Your task to perform on an android device: toggle translation in the chrome app Image 0: 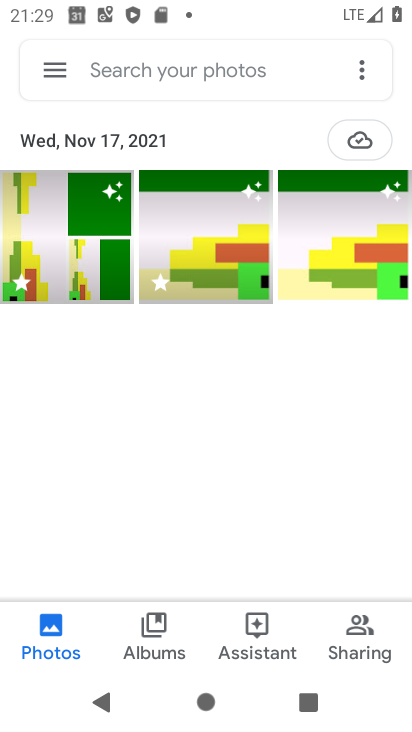
Step 0: press home button
Your task to perform on an android device: toggle translation in the chrome app Image 1: 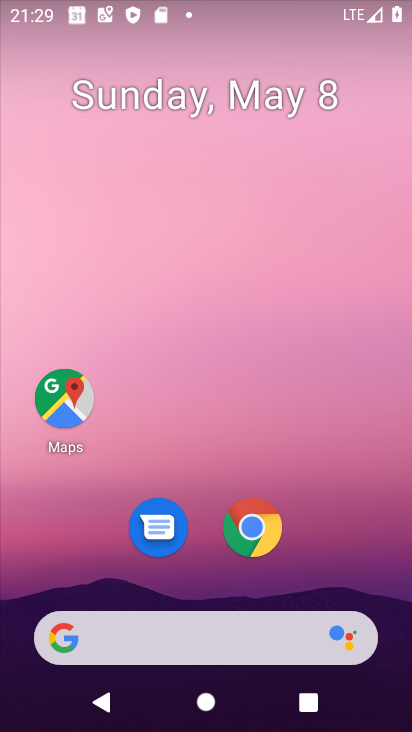
Step 1: click (254, 531)
Your task to perform on an android device: toggle translation in the chrome app Image 2: 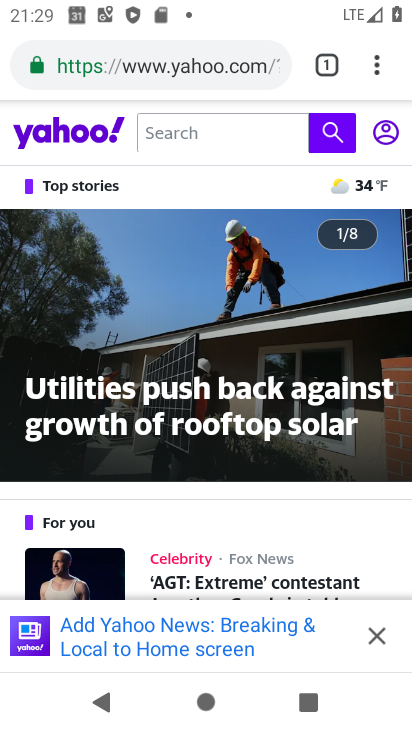
Step 2: click (366, 69)
Your task to perform on an android device: toggle translation in the chrome app Image 3: 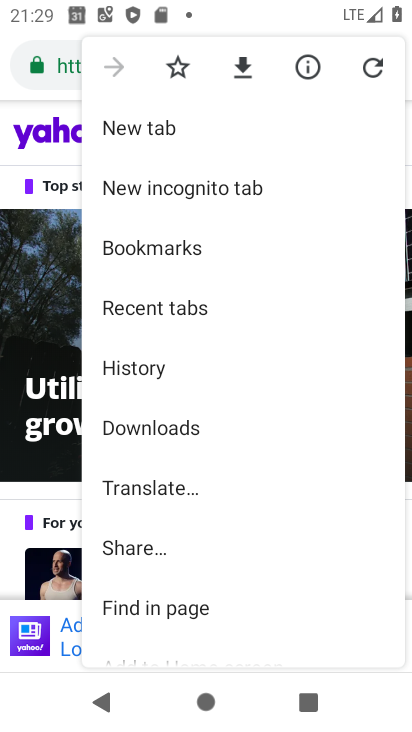
Step 3: drag from (278, 591) to (283, 208)
Your task to perform on an android device: toggle translation in the chrome app Image 4: 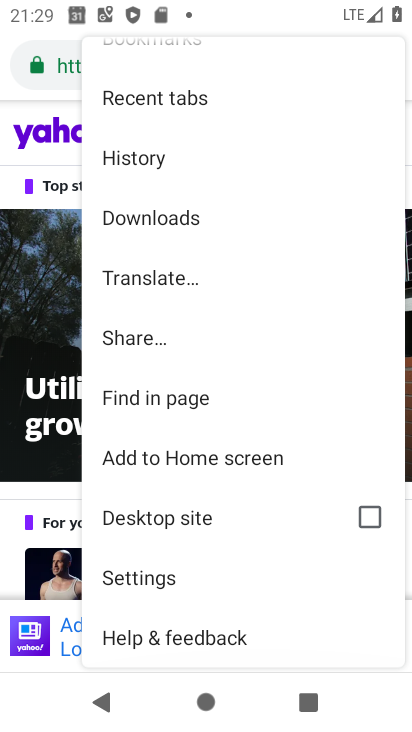
Step 4: click (159, 577)
Your task to perform on an android device: toggle translation in the chrome app Image 5: 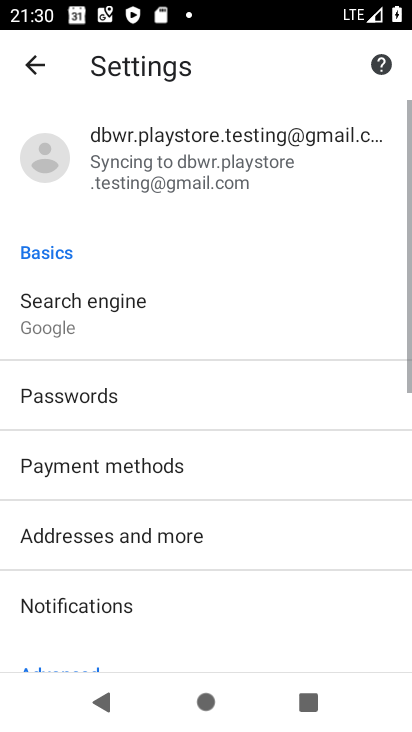
Step 5: drag from (251, 577) to (225, 239)
Your task to perform on an android device: toggle translation in the chrome app Image 6: 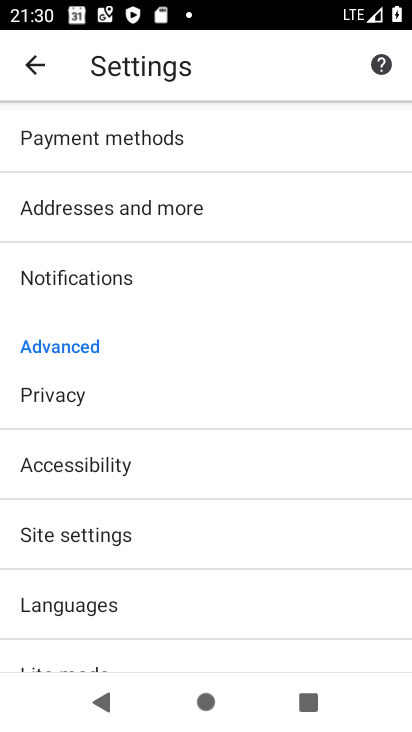
Step 6: drag from (216, 552) to (228, 161)
Your task to perform on an android device: toggle translation in the chrome app Image 7: 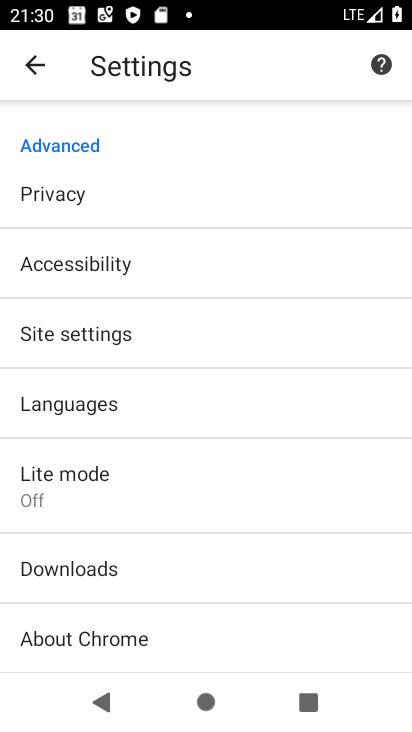
Step 7: click (166, 400)
Your task to perform on an android device: toggle translation in the chrome app Image 8: 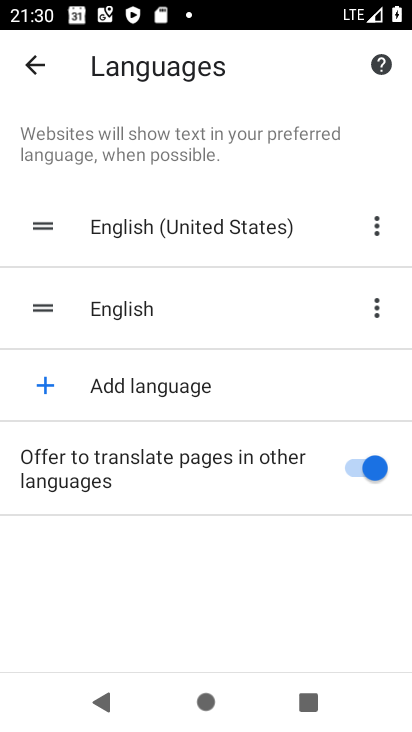
Step 8: click (366, 470)
Your task to perform on an android device: toggle translation in the chrome app Image 9: 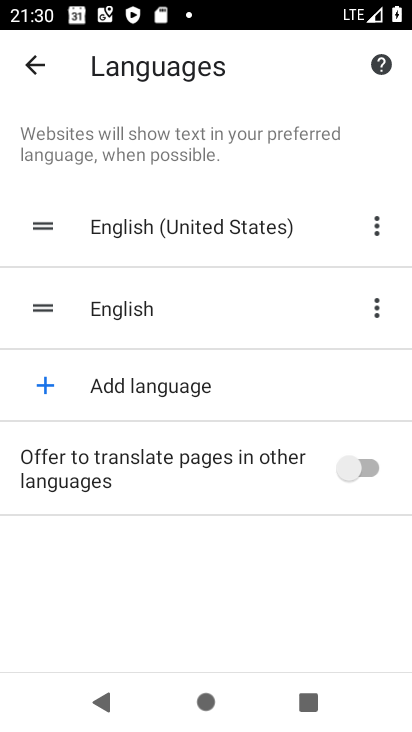
Step 9: task complete